Your task to perform on an android device: turn on bluetooth scan Image 0: 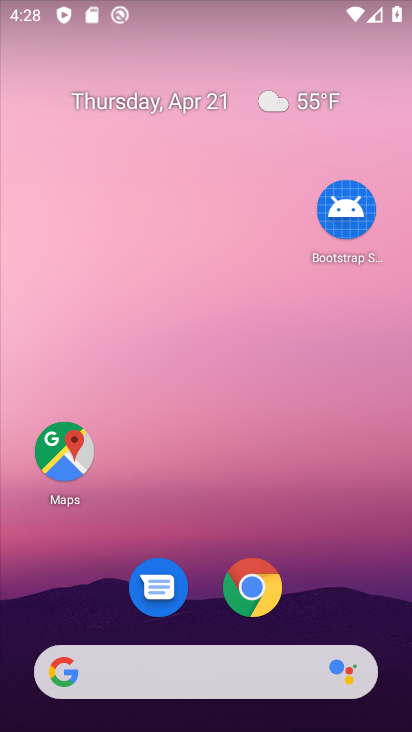
Step 0: drag from (357, 595) to (383, 125)
Your task to perform on an android device: turn on bluetooth scan Image 1: 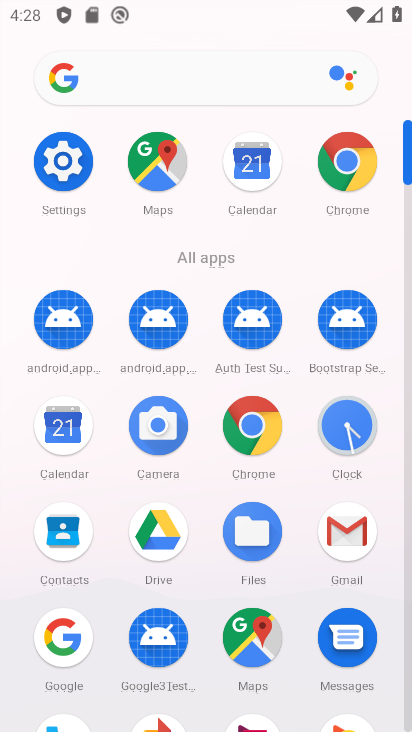
Step 1: click (68, 145)
Your task to perform on an android device: turn on bluetooth scan Image 2: 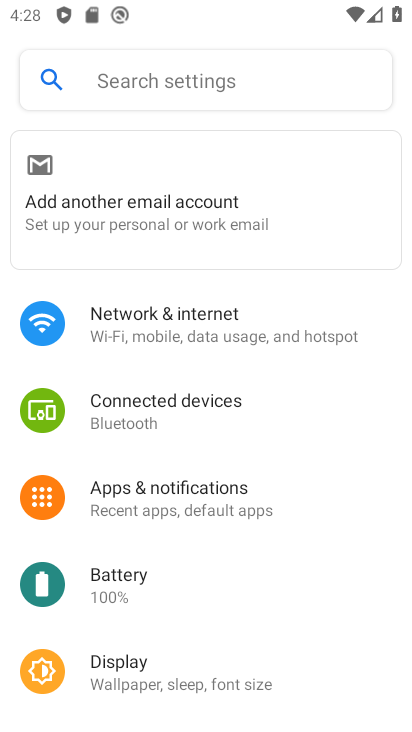
Step 2: click (352, 614)
Your task to perform on an android device: turn on bluetooth scan Image 3: 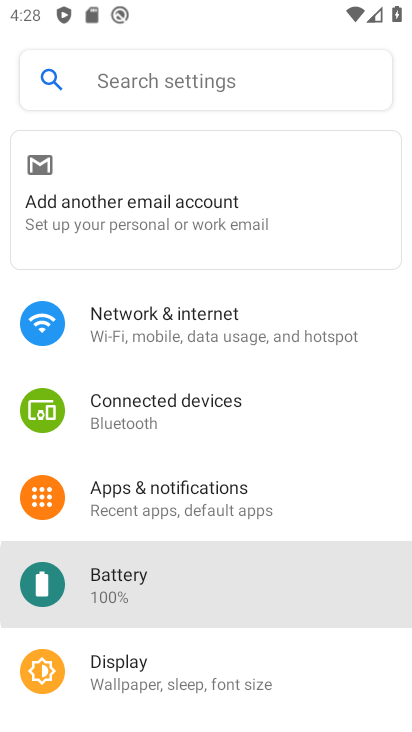
Step 3: click (378, 453)
Your task to perform on an android device: turn on bluetooth scan Image 4: 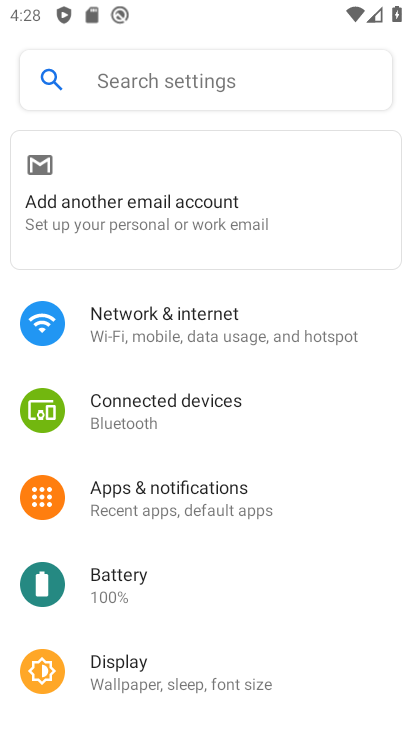
Step 4: drag from (386, 340) to (396, 279)
Your task to perform on an android device: turn on bluetooth scan Image 5: 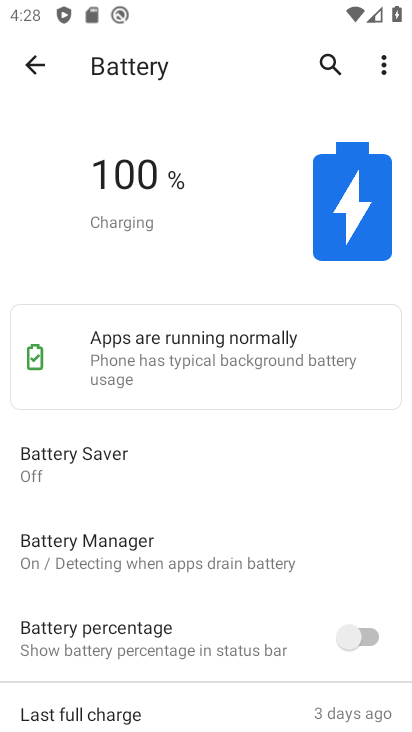
Step 5: click (29, 57)
Your task to perform on an android device: turn on bluetooth scan Image 6: 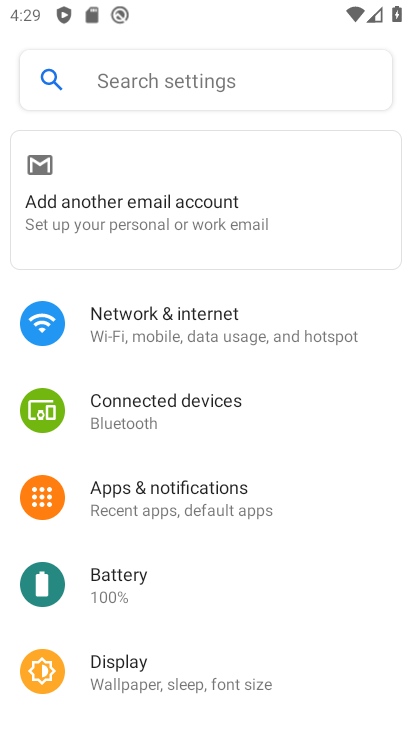
Step 6: drag from (308, 524) to (347, 121)
Your task to perform on an android device: turn on bluetooth scan Image 7: 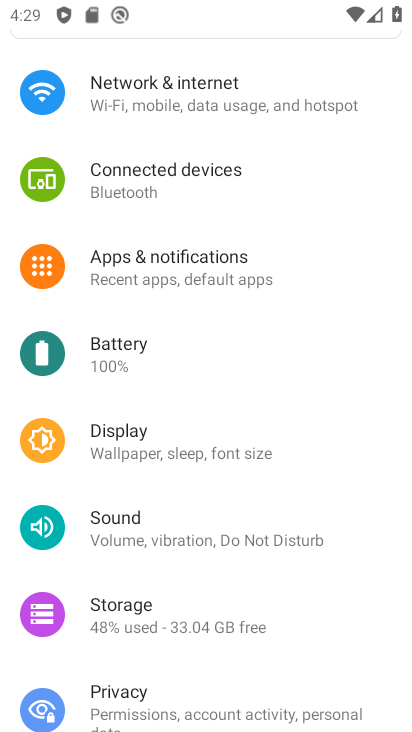
Step 7: drag from (314, 500) to (323, 329)
Your task to perform on an android device: turn on bluetooth scan Image 8: 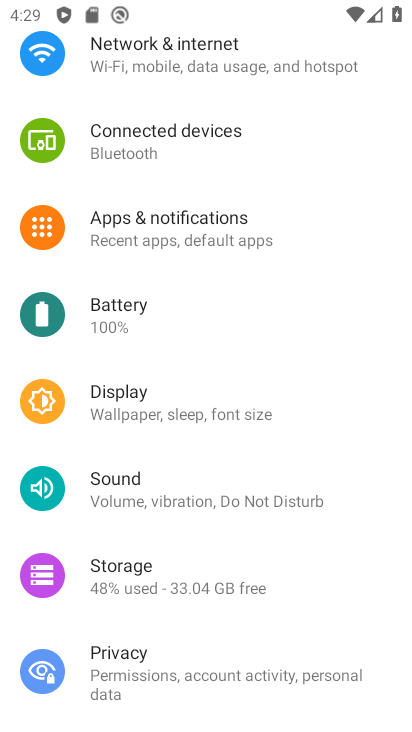
Step 8: drag from (351, 645) to (356, 332)
Your task to perform on an android device: turn on bluetooth scan Image 9: 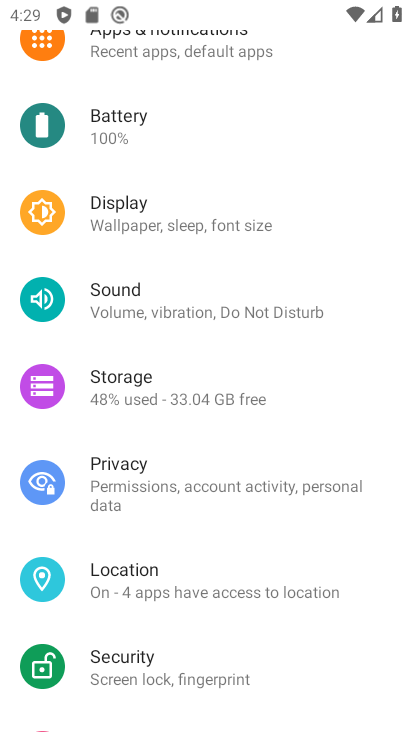
Step 9: click (170, 586)
Your task to perform on an android device: turn on bluetooth scan Image 10: 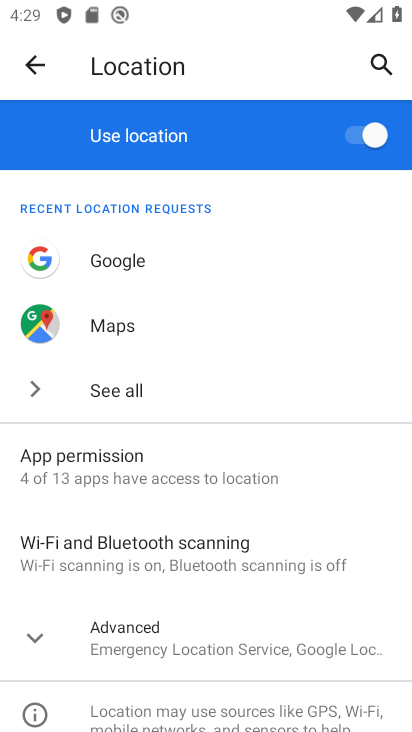
Step 10: click (271, 640)
Your task to perform on an android device: turn on bluetooth scan Image 11: 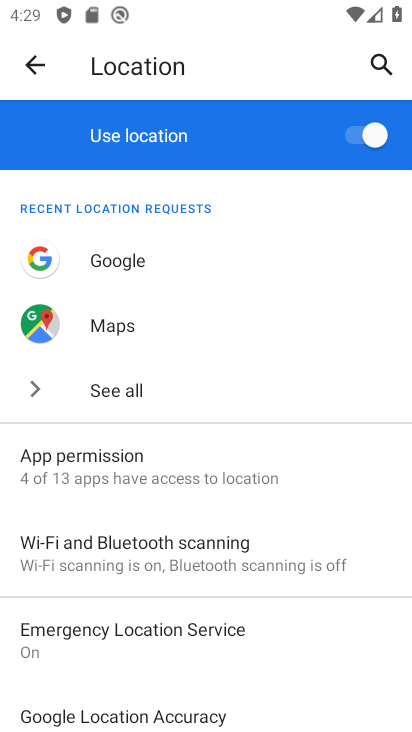
Step 11: drag from (323, 642) to (319, 320)
Your task to perform on an android device: turn on bluetooth scan Image 12: 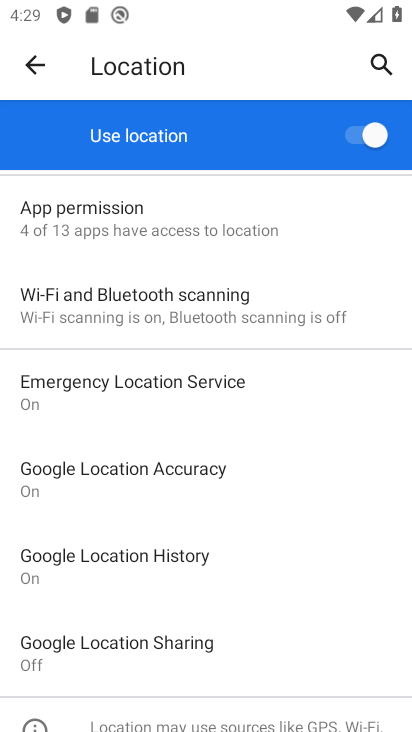
Step 12: click (57, 291)
Your task to perform on an android device: turn on bluetooth scan Image 13: 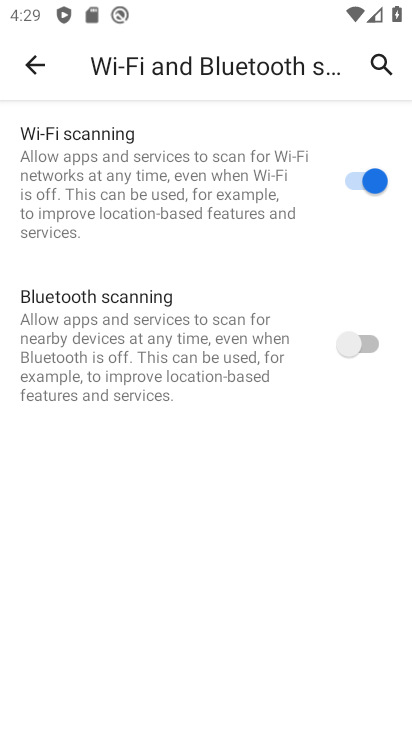
Step 13: click (372, 341)
Your task to perform on an android device: turn on bluetooth scan Image 14: 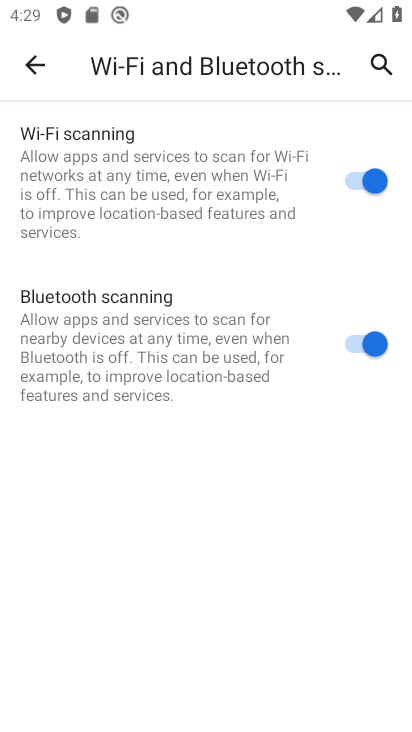
Step 14: task complete